Your task to perform on an android device: install app "Upside-Cash back on gas & food" Image 0: 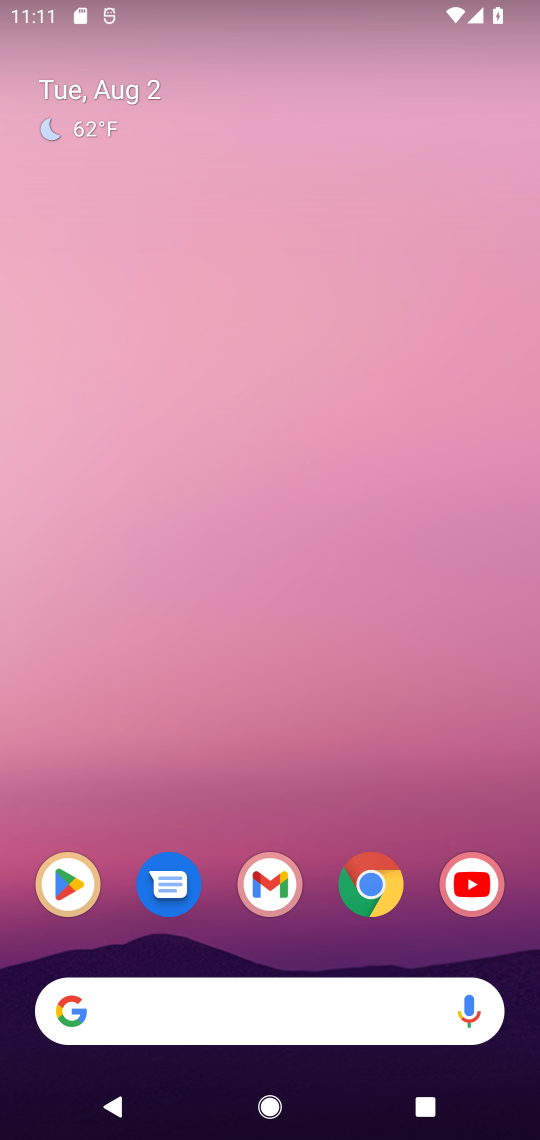
Step 0: click (80, 890)
Your task to perform on an android device: install app "Upside-Cash back on gas & food" Image 1: 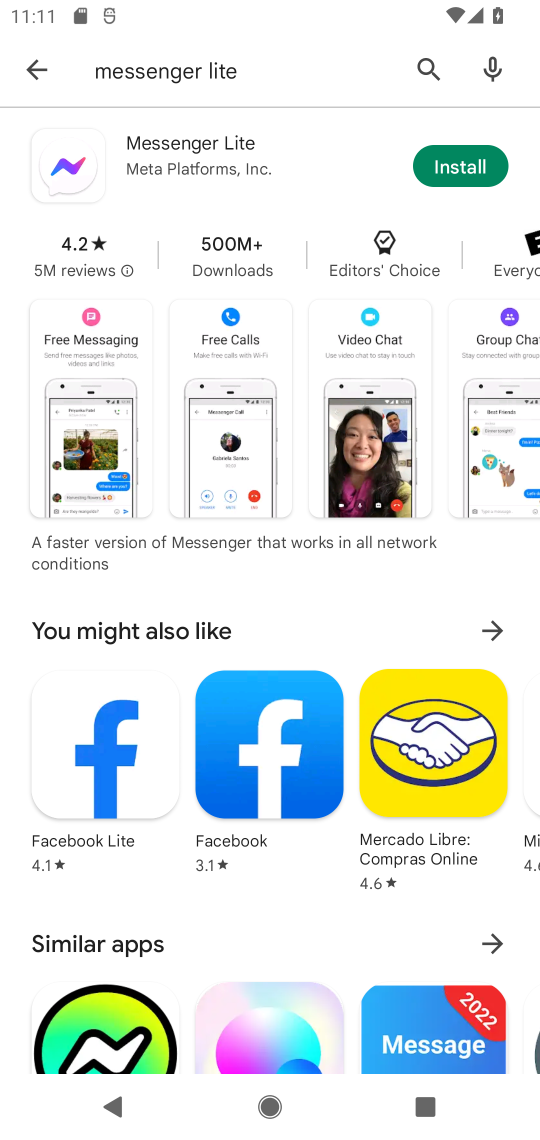
Step 1: click (182, 75)
Your task to perform on an android device: install app "Upside-Cash back on gas & food" Image 2: 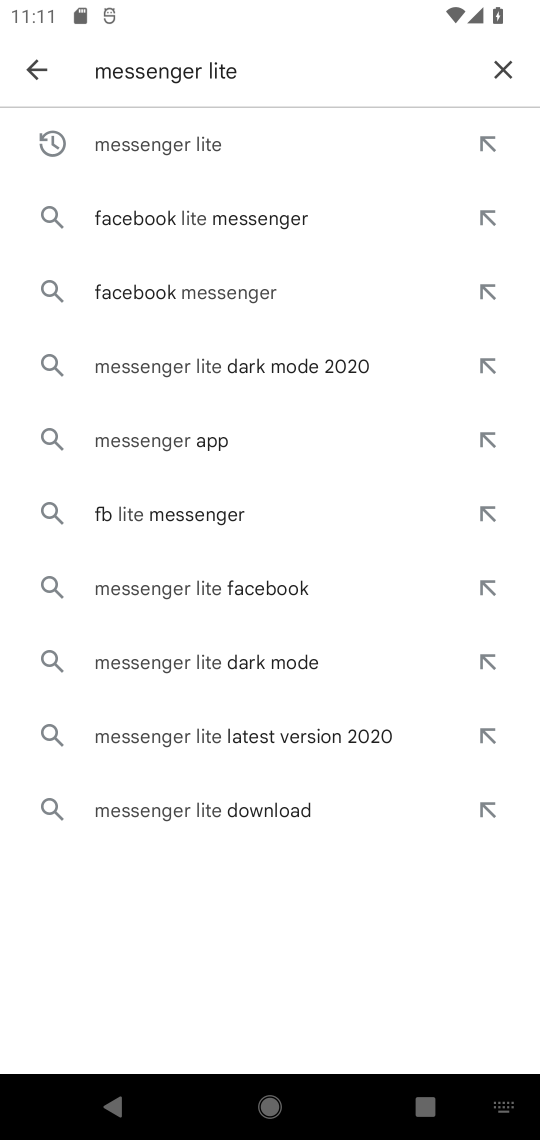
Step 2: click (506, 58)
Your task to perform on an android device: install app "Upside-Cash back on gas & food" Image 3: 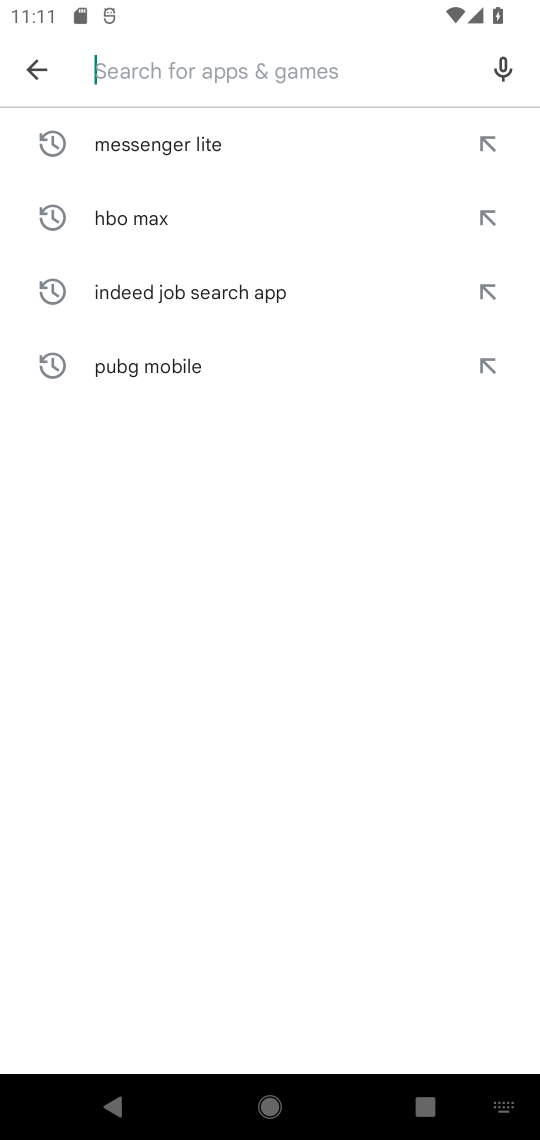
Step 3: type "Upside"
Your task to perform on an android device: install app "Upside-Cash back on gas & food" Image 4: 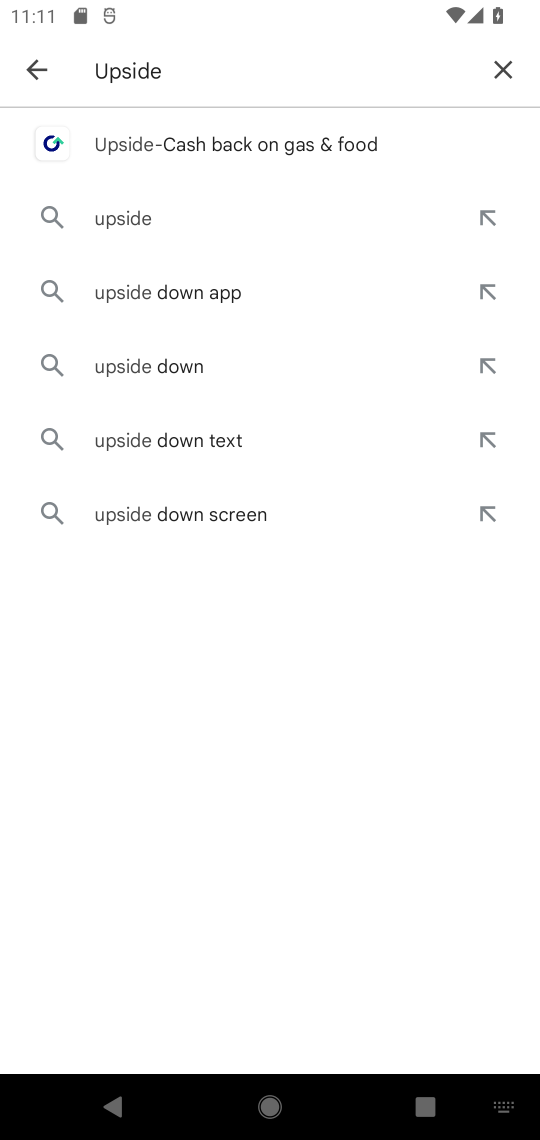
Step 4: click (181, 160)
Your task to perform on an android device: install app "Upside-Cash back on gas & food" Image 5: 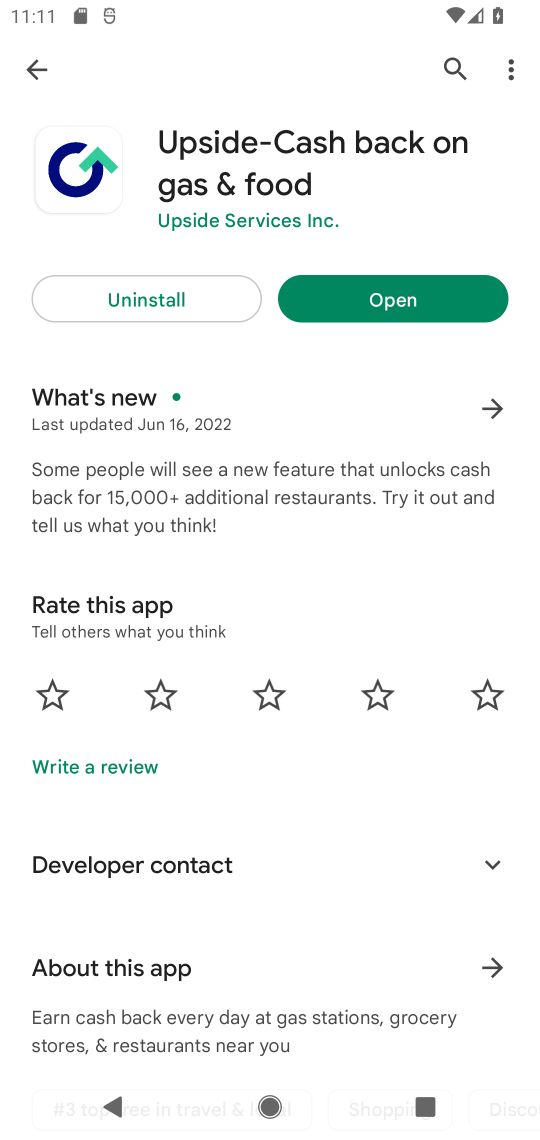
Step 5: task complete